Your task to perform on an android device: change alarm snooze length Image 0: 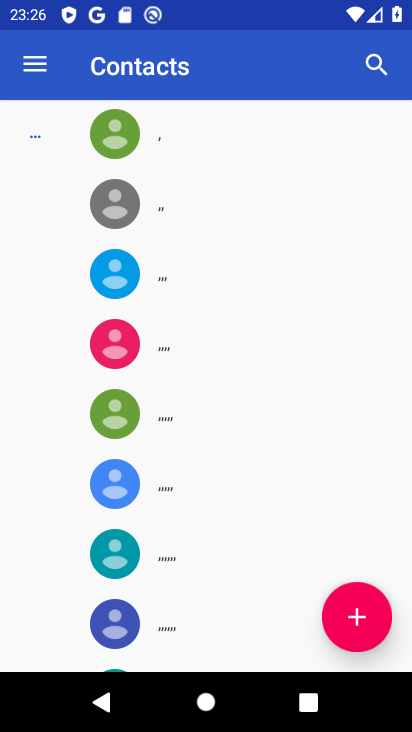
Step 0: press back button
Your task to perform on an android device: change alarm snooze length Image 1: 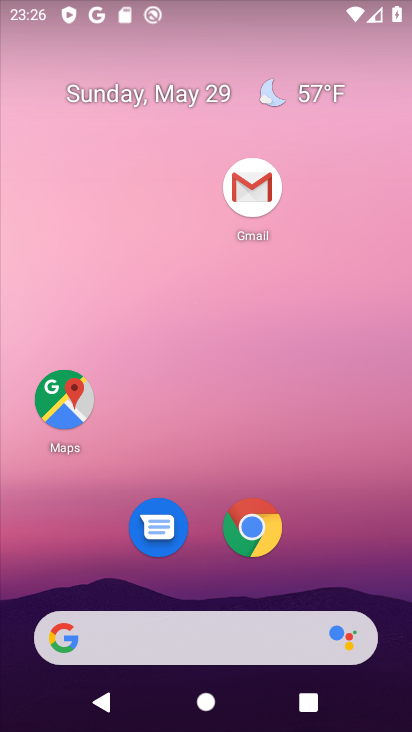
Step 1: drag from (350, 520) to (266, 1)
Your task to perform on an android device: change alarm snooze length Image 2: 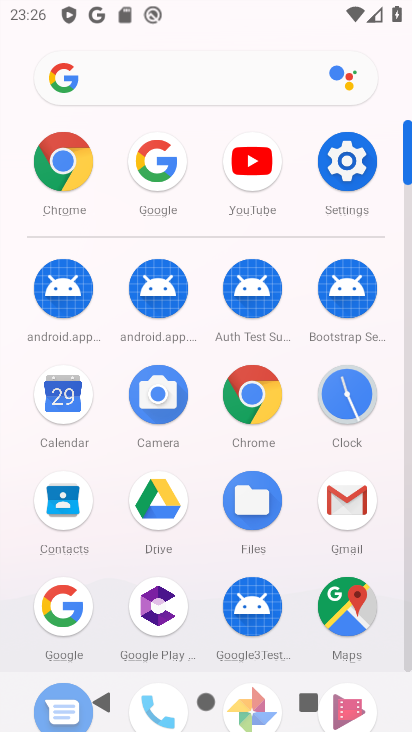
Step 2: click (347, 395)
Your task to perform on an android device: change alarm snooze length Image 3: 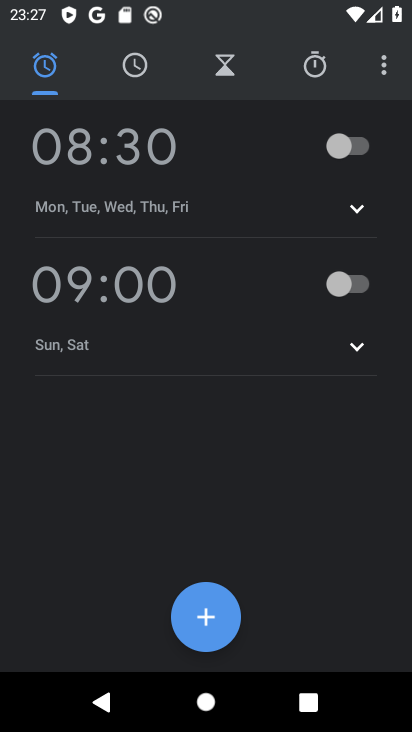
Step 3: click (385, 68)
Your task to perform on an android device: change alarm snooze length Image 4: 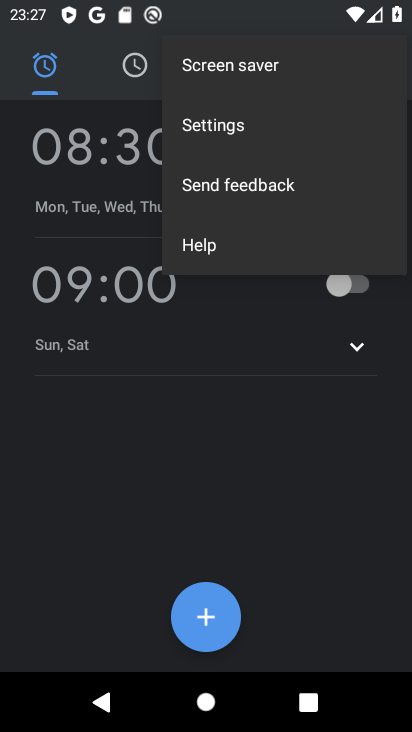
Step 4: click (218, 129)
Your task to perform on an android device: change alarm snooze length Image 5: 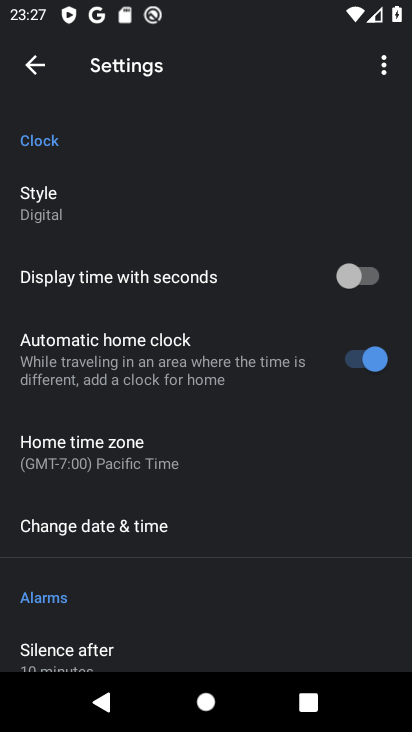
Step 5: drag from (216, 503) to (268, 373)
Your task to perform on an android device: change alarm snooze length Image 6: 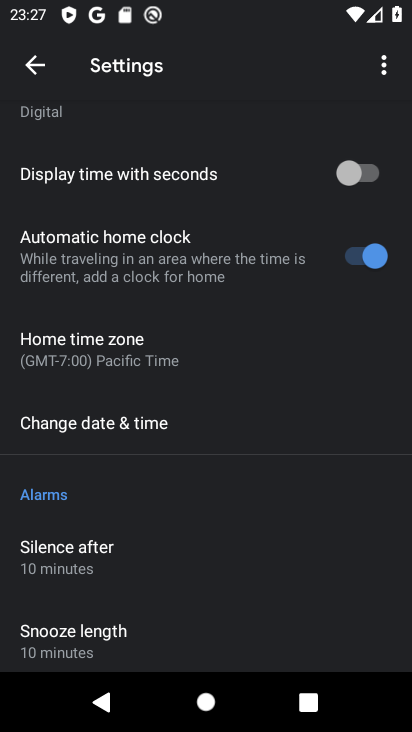
Step 6: drag from (206, 542) to (268, 415)
Your task to perform on an android device: change alarm snooze length Image 7: 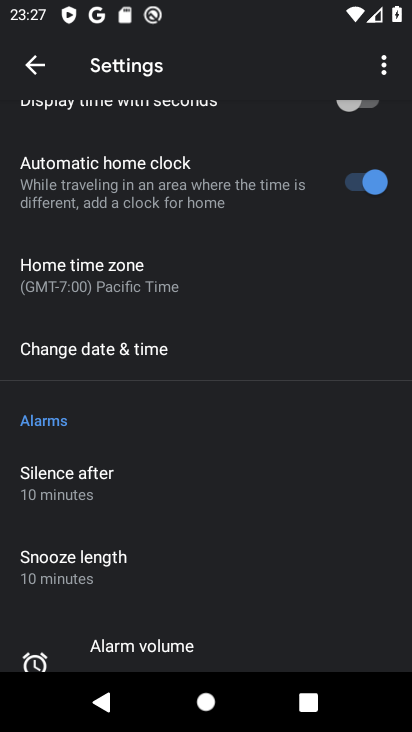
Step 7: drag from (193, 489) to (241, 378)
Your task to perform on an android device: change alarm snooze length Image 8: 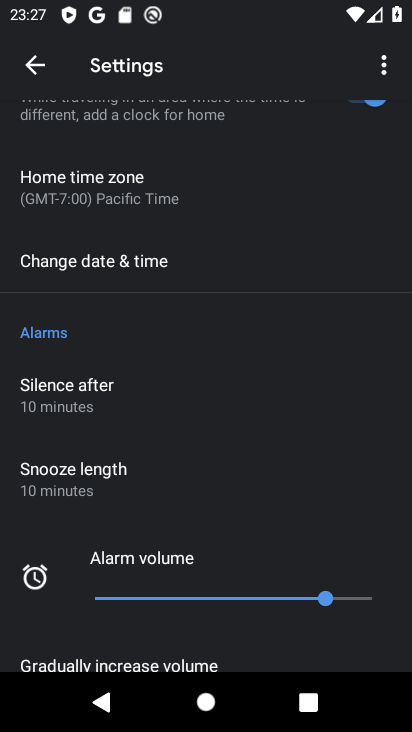
Step 8: click (158, 472)
Your task to perform on an android device: change alarm snooze length Image 9: 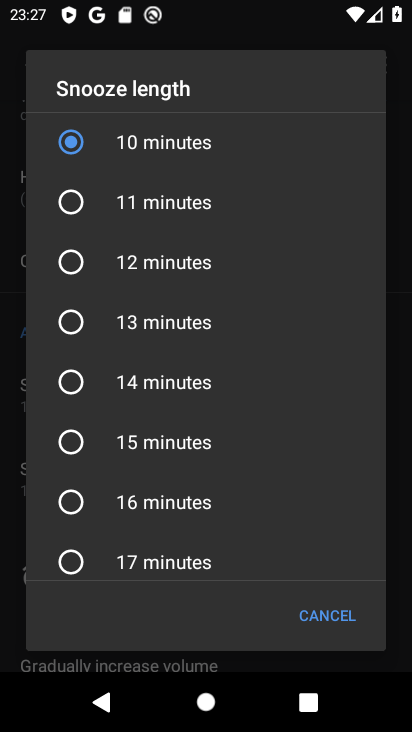
Step 9: drag from (168, 478) to (202, 371)
Your task to perform on an android device: change alarm snooze length Image 10: 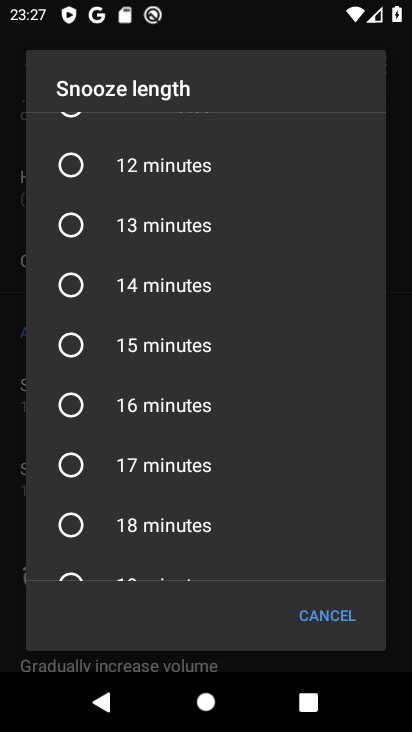
Step 10: drag from (161, 493) to (244, 341)
Your task to perform on an android device: change alarm snooze length Image 11: 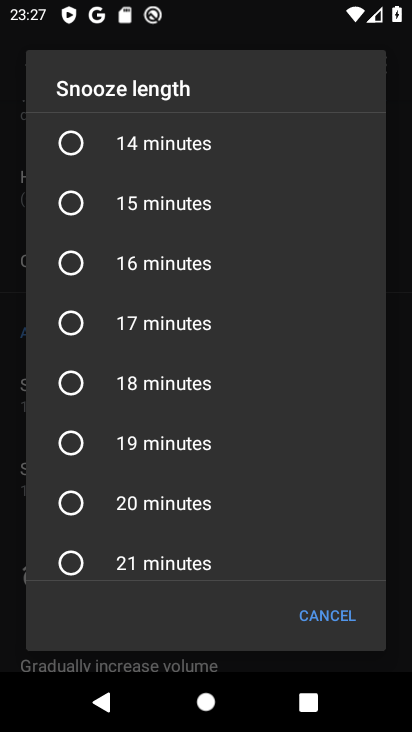
Step 11: click (70, 452)
Your task to perform on an android device: change alarm snooze length Image 12: 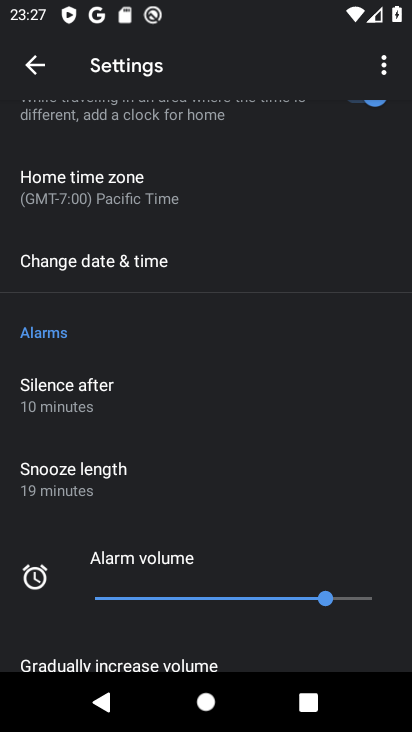
Step 12: task complete